Your task to perform on an android device: check google app version Image 0: 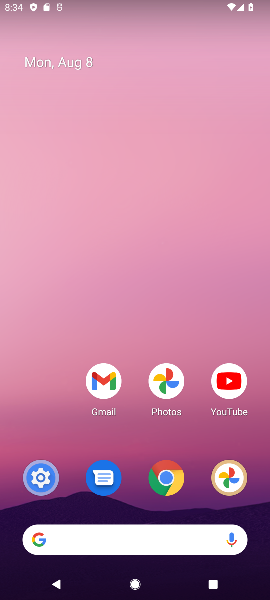
Step 0: press home button
Your task to perform on an android device: check google app version Image 1: 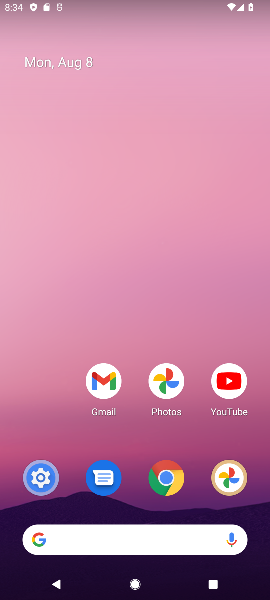
Step 1: drag from (116, 540) to (243, 68)
Your task to perform on an android device: check google app version Image 2: 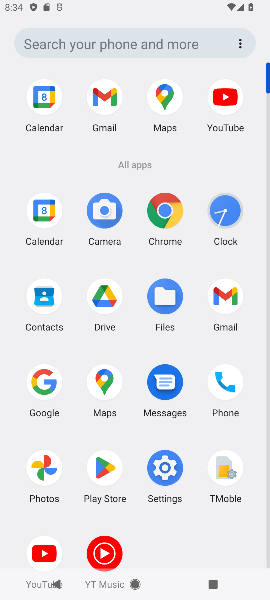
Step 2: click (48, 380)
Your task to perform on an android device: check google app version Image 3: 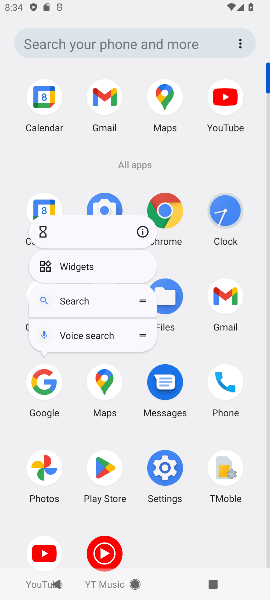
Step 3: click (139, 231)
Your task to perform on an android device: check google app version Image 4: 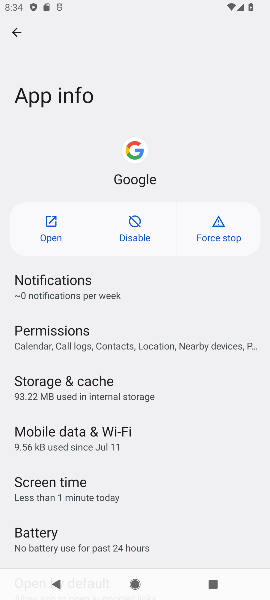
Step 4: task complete